Your task to perform on an android device: turn notification dots on Image 0: 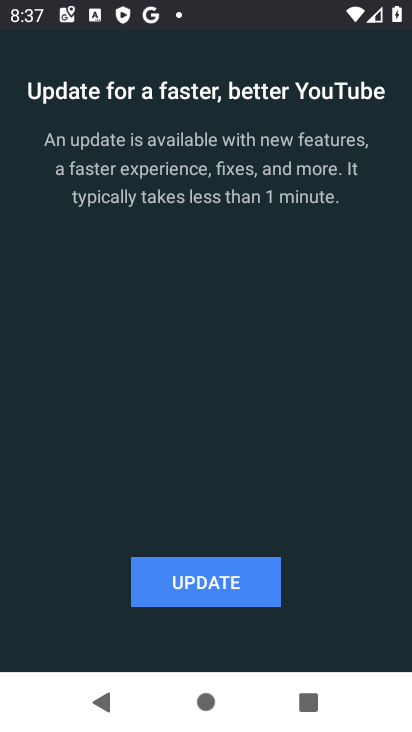
Step 0: press home button
Your task to perform on an android device: turn notification dots on Image 1: 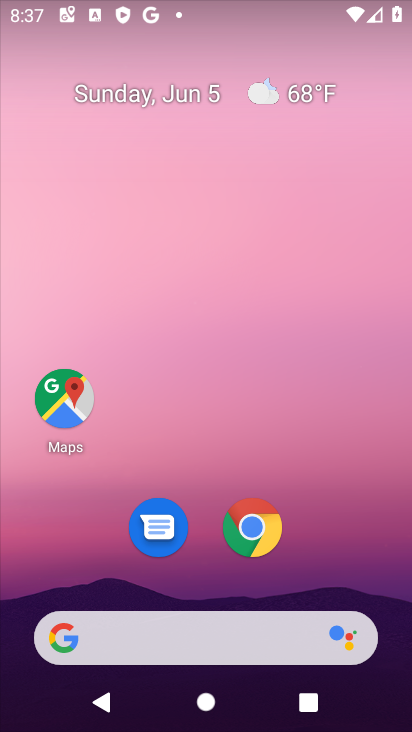
Step 1: drag from (186, 582) to (237, 111)
Your task to perform on an android device: turn notification dots on Image 2: 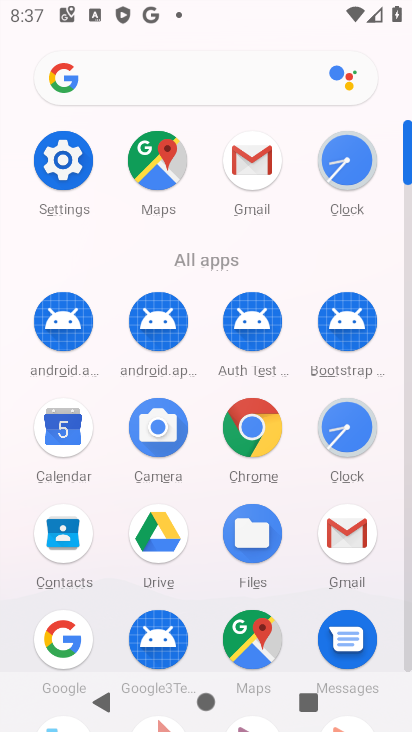
Step 2: click (69, 172)
Your task to perform on an android device: turn notification dots on Image 3: 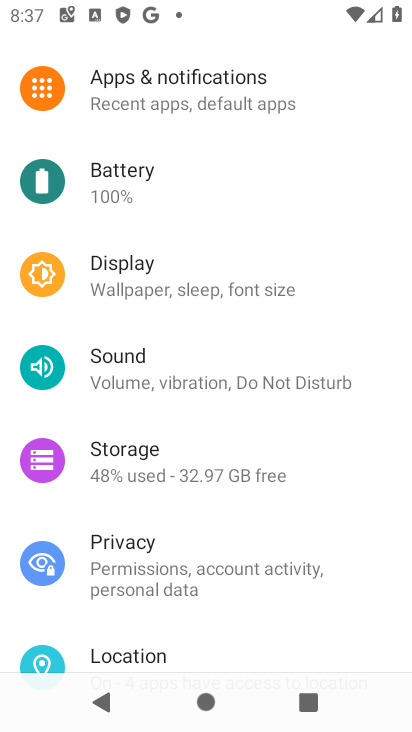
Step 3: click (145, 96)
Your task to perform on an android device: turn notification dots on Image 4: 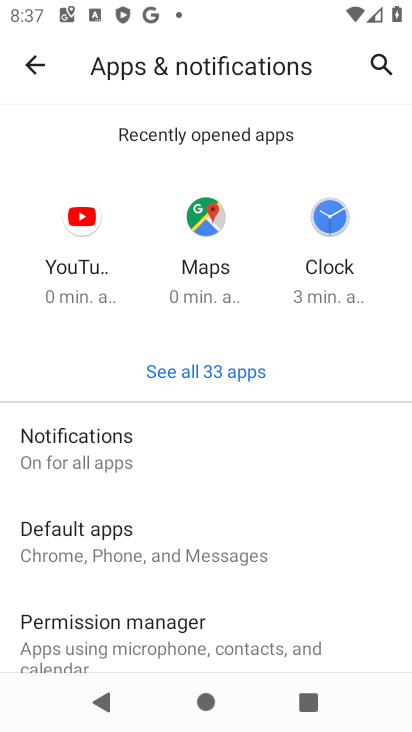
Step 4: click (117, 463)
Your task to perform on an android device: turn notification dots on Image 5: 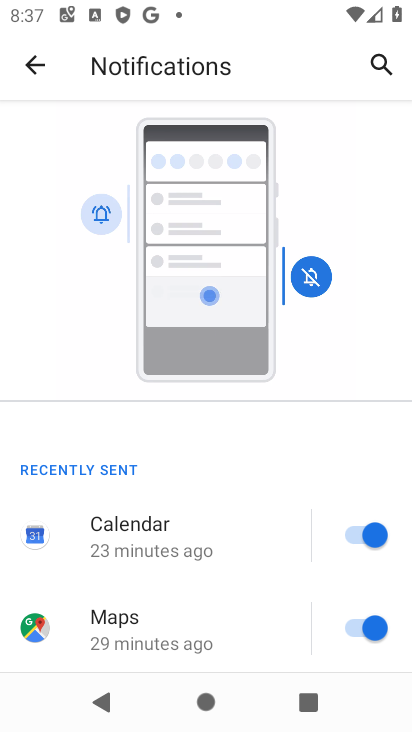
Step 5: drag from (126, 579) to (210, 58)
Your task to perform on an android device: turn notification dots on Image 6: 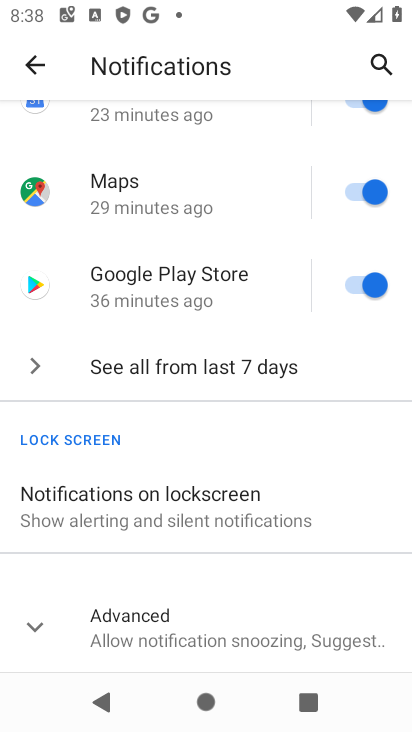
Step 6: drag from (47, 626) to (235, 200)
Your task to perform on an android device: turn notification dots on Image 7: 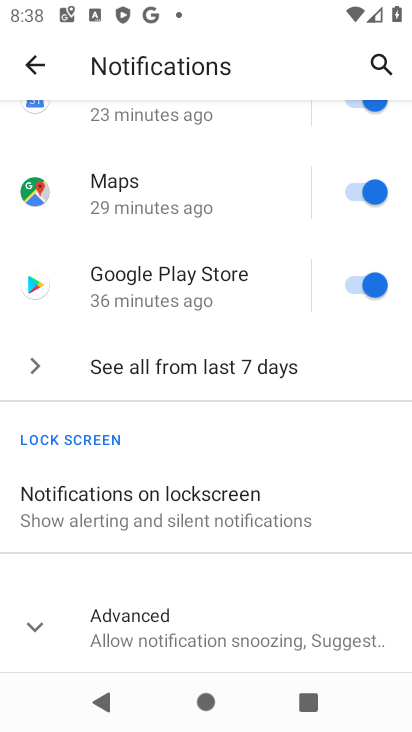
Step 7: click (113, 639)
Your task to perform on an android device: turn notification dots on Image 8: 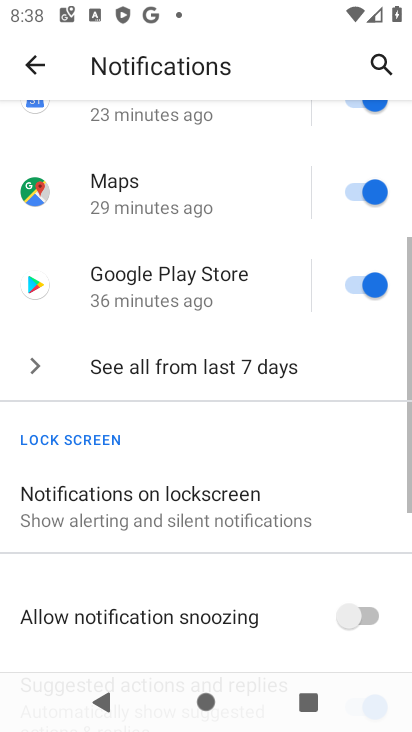
Step 8: task complete